Your task to perform on an android device: turn off data saver in the chrome app Image 0: 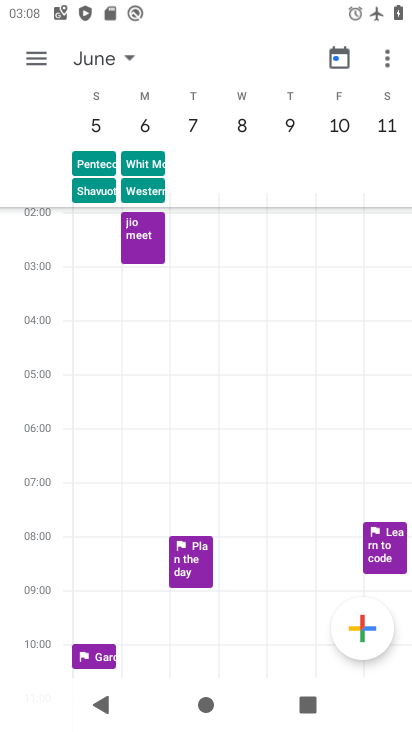
Step 0: press home button
Your task to perform on an android device: turn off data saver in the chrome app Image 1: 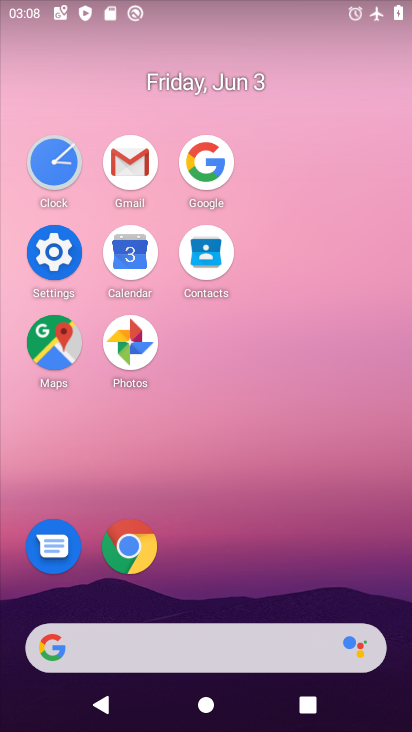
Step 1: click (144, 549)
Your task to perform on an android device: turn off data saver in the chrome app Image 2: 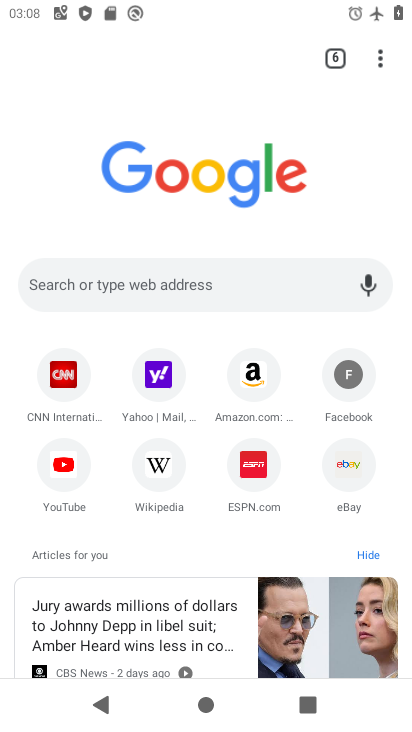
Step 2: click (391, 50)
Your task to perform on an android device: turn off data saver in the chrome app Image 3: 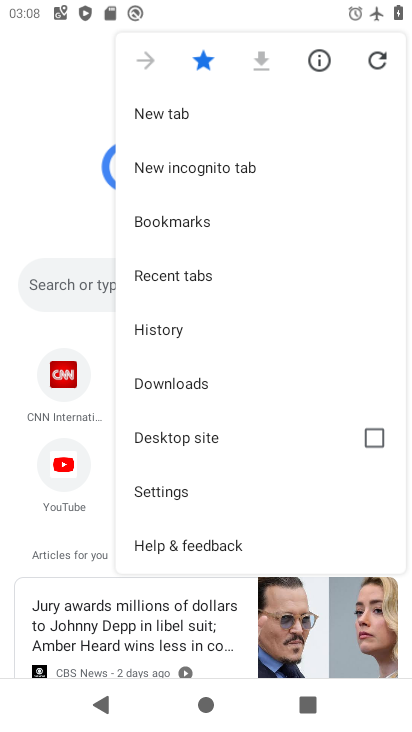
Step 3: click (227, 482)
Your task to perform on an android device: turn off data saver in the chrome app Image 4: 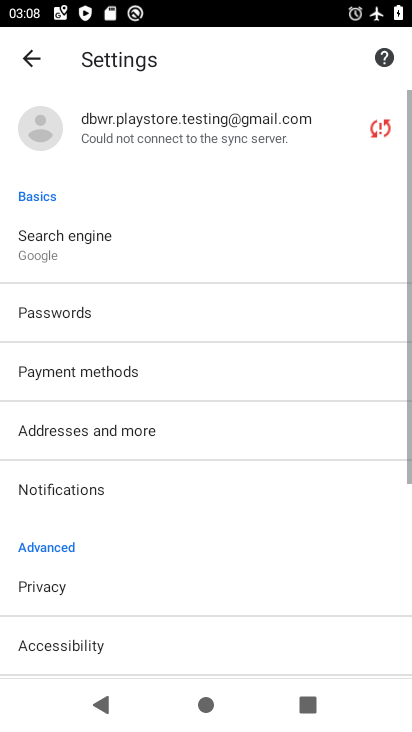
Step 4: drag from (227, 481) to (258, 87)
Your task to perform on an android device: turn off data saver in the chrome app Image 5: 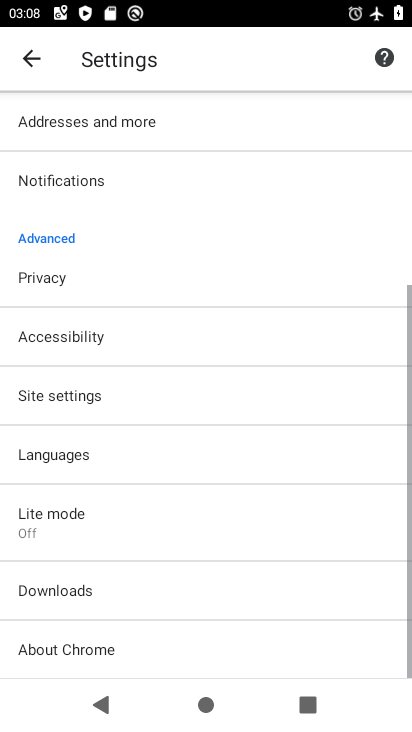
Step 5: drag from (179, 589) to (211, 146)
Your task to perform on an android device: turn off data saver in the chrome app Image 6: 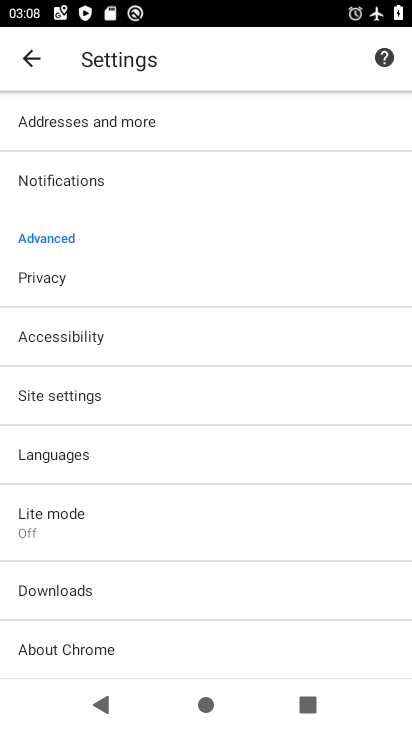
Step 6: click (119, 519)
Your task to perform on an android device: turn off data saver in the chrome app Image 7: 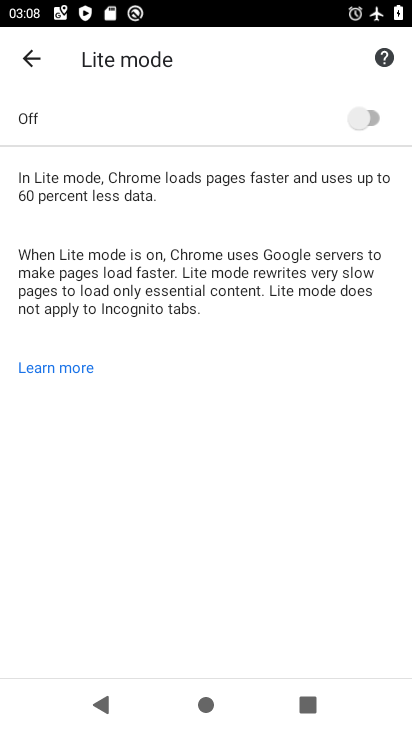
Step 7: task complete